Your task to perform on an android device: What's the weather? Image 0: 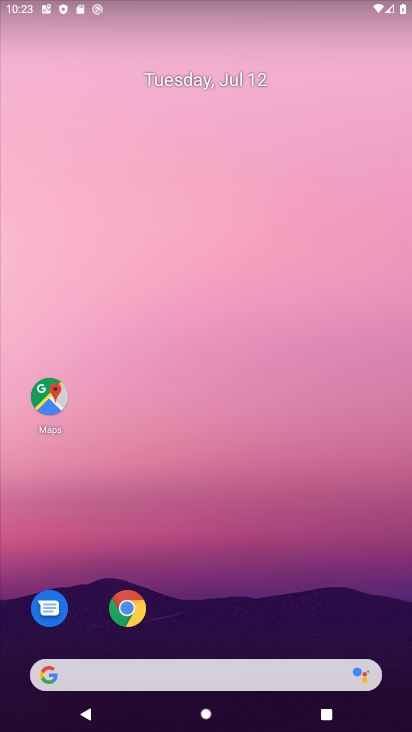
Step 0: click (200, 669)
Your task to perform on an android device: What's the weather? Image 1: 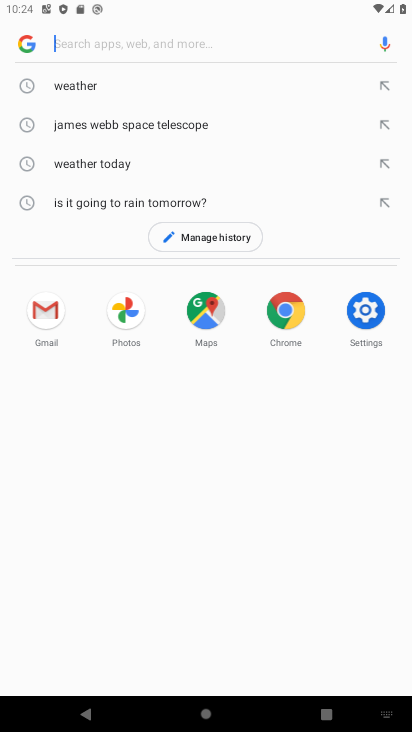
Step 1: type "what's the weather?"
Your task to perform on an android device: What's the weather? Image 2: 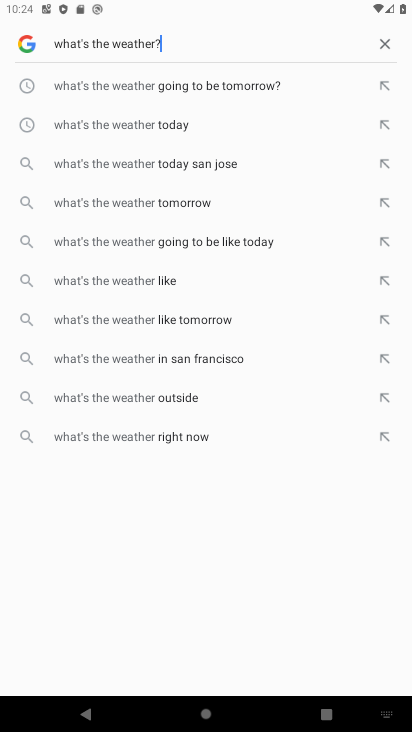
Step 2: click (176, 129)
Your task to perform on an android device: What's the weather? Image 3: 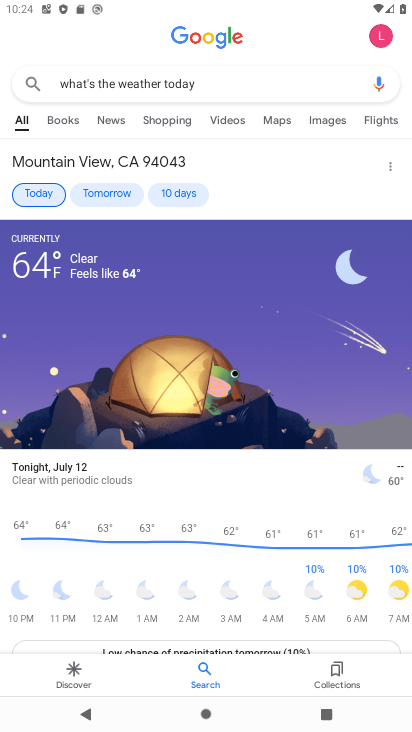
Step 3: task complete